Your task to perform on an android device: turn on bluetooth scan Image 0: 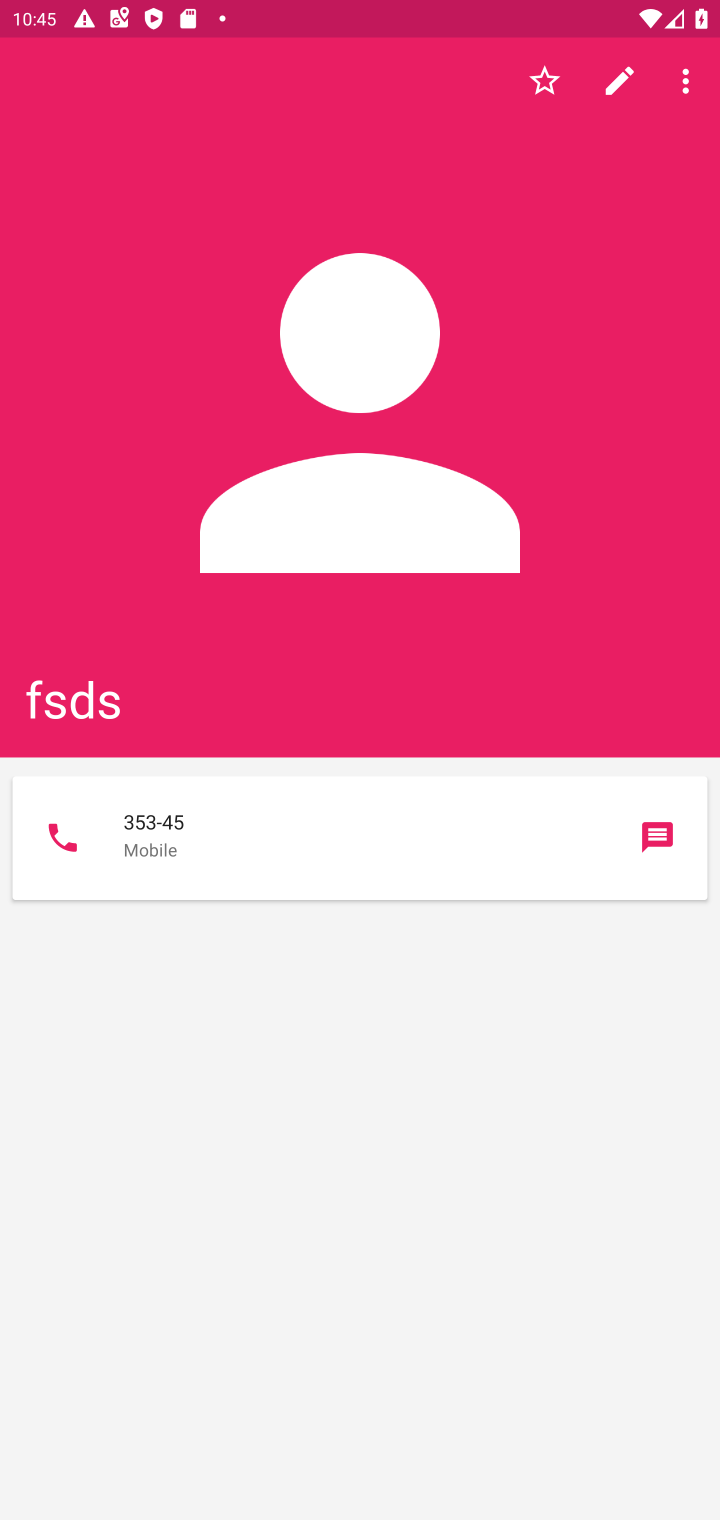
Step 0: press home button
Your task to perform on an android device: turn on bluetooth scan Image 1: 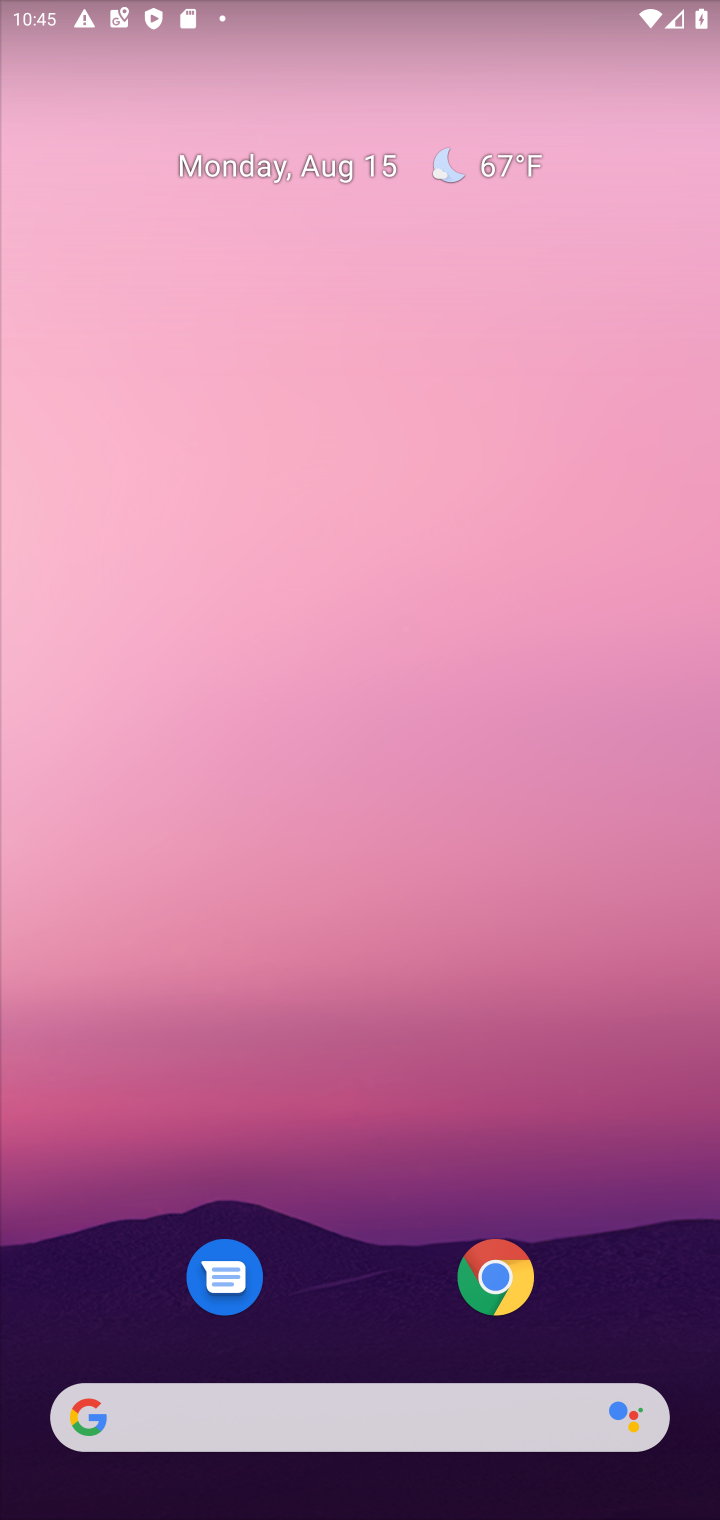
Step 1: drag from (420, 1399) to (209, 82)
Your task to perform on an android device: turn on bluetooth scan Image 2: 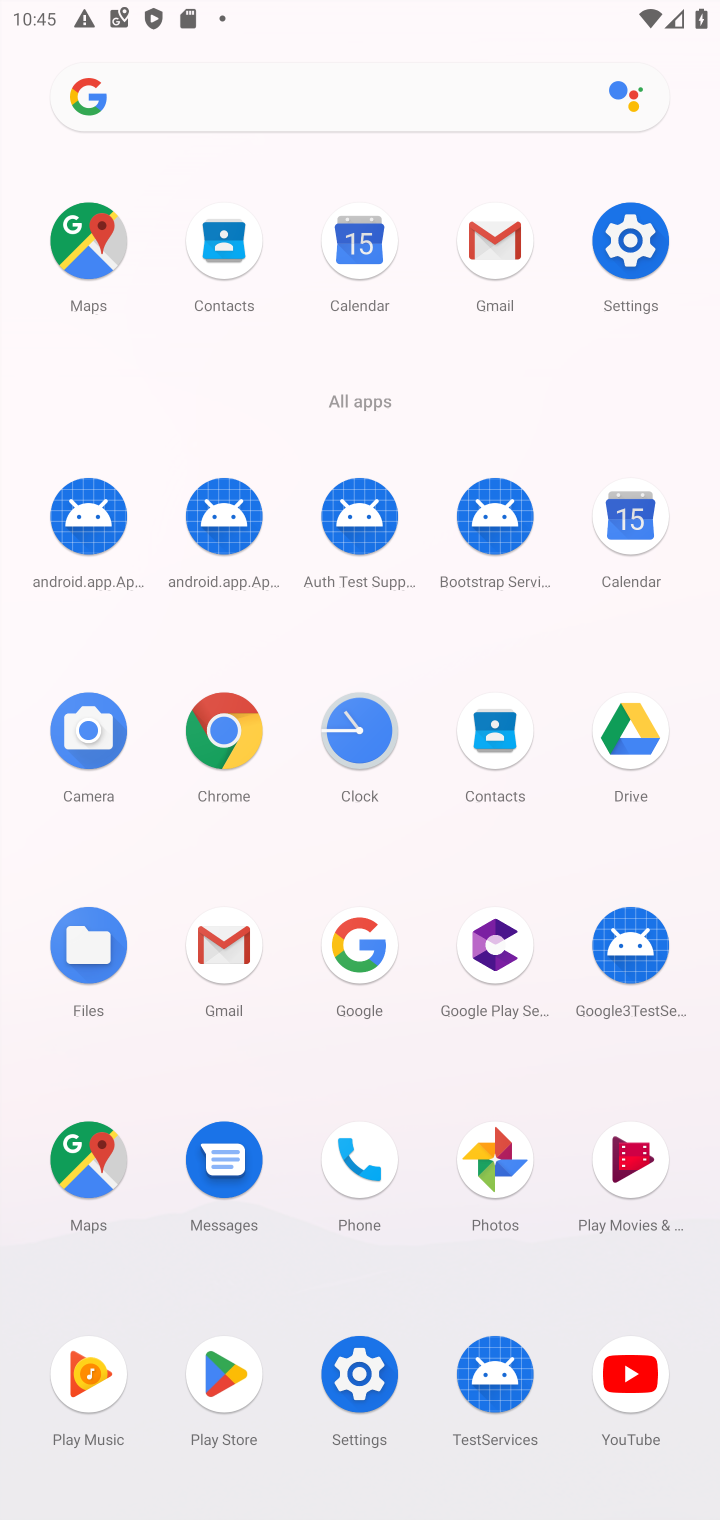
Step 2: click (605, 267)
Your task to perform on an android device: turn on bluetooth scan Image 3: 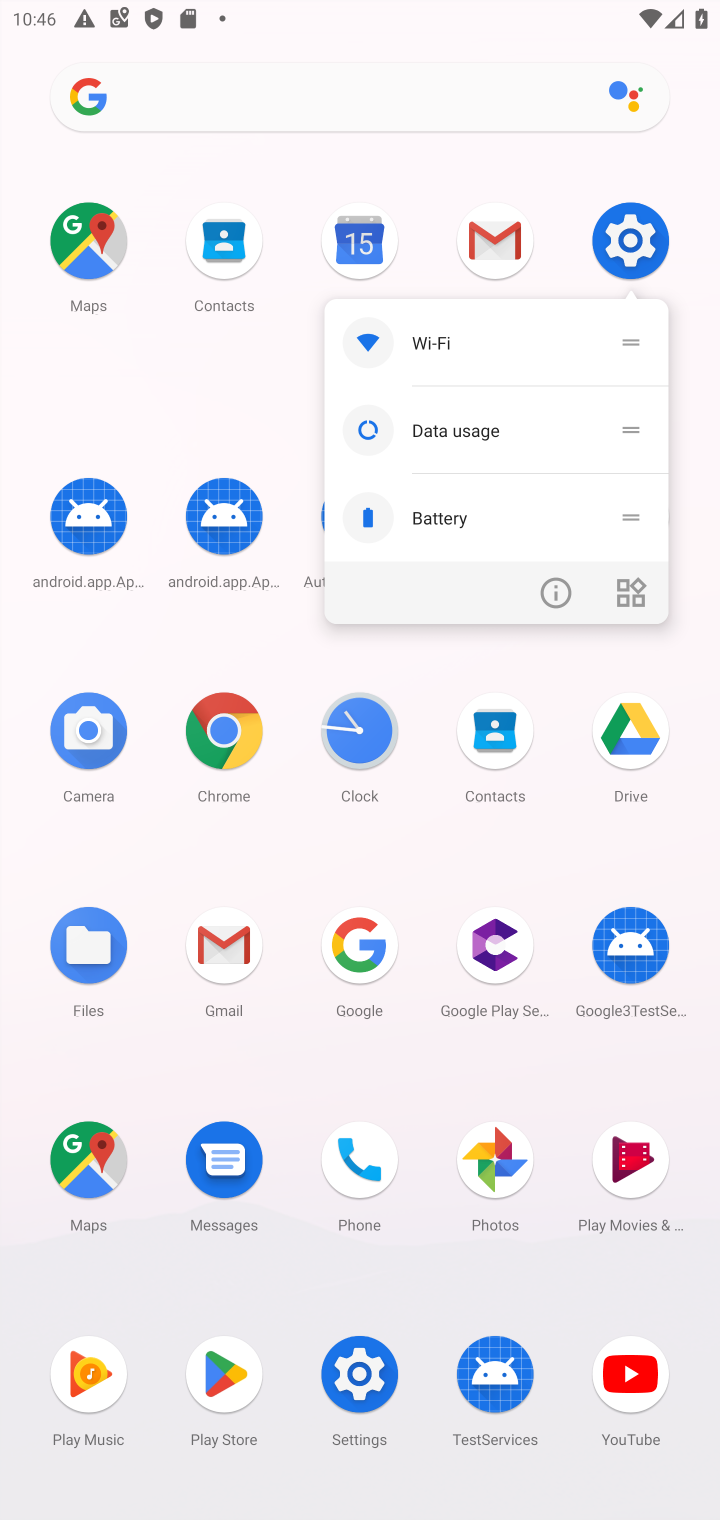
Step 3: click (636, 251)
Your task to perform on an android device: turn on bluetooth scan Image 4: 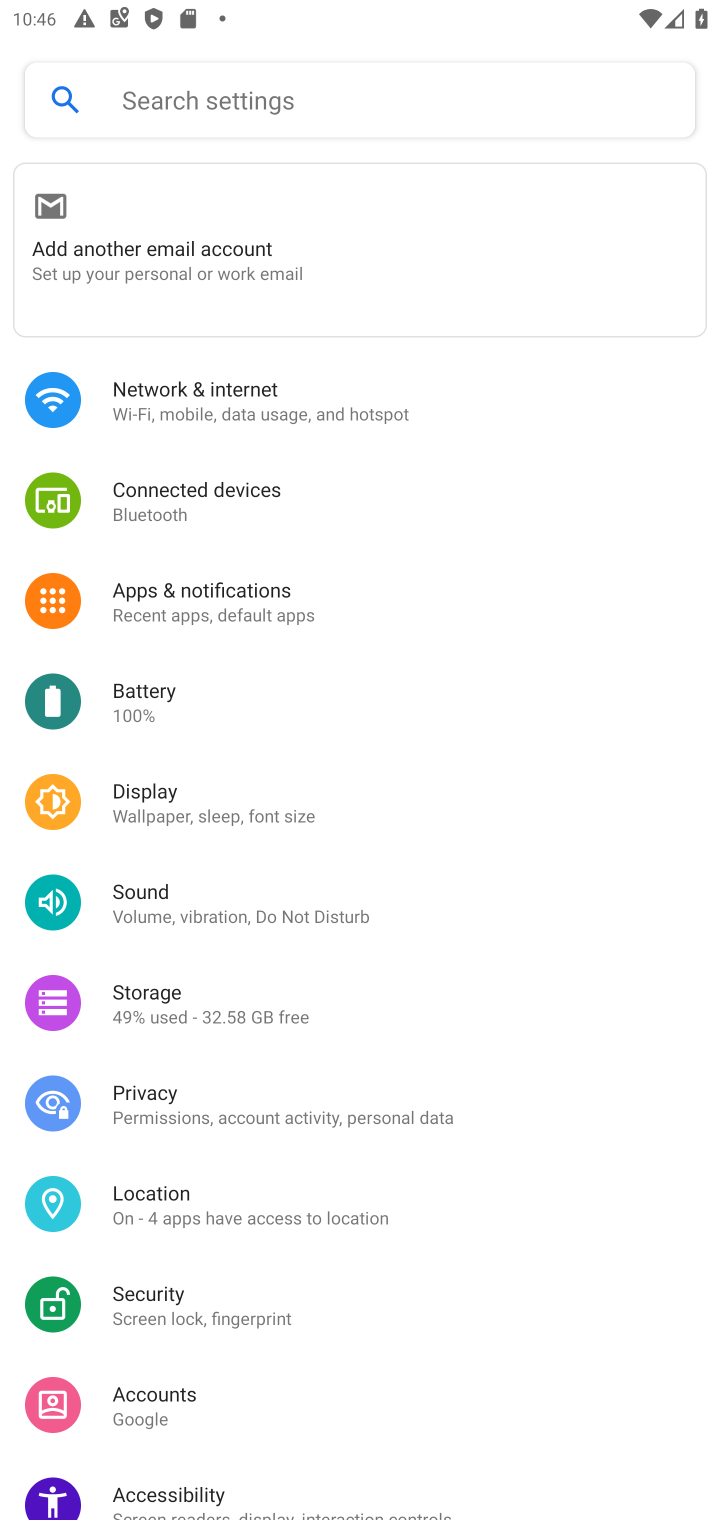
Step 4: click (173, 1242)
Your task to perform on an android device: turn on bluetooth scan Image 5: 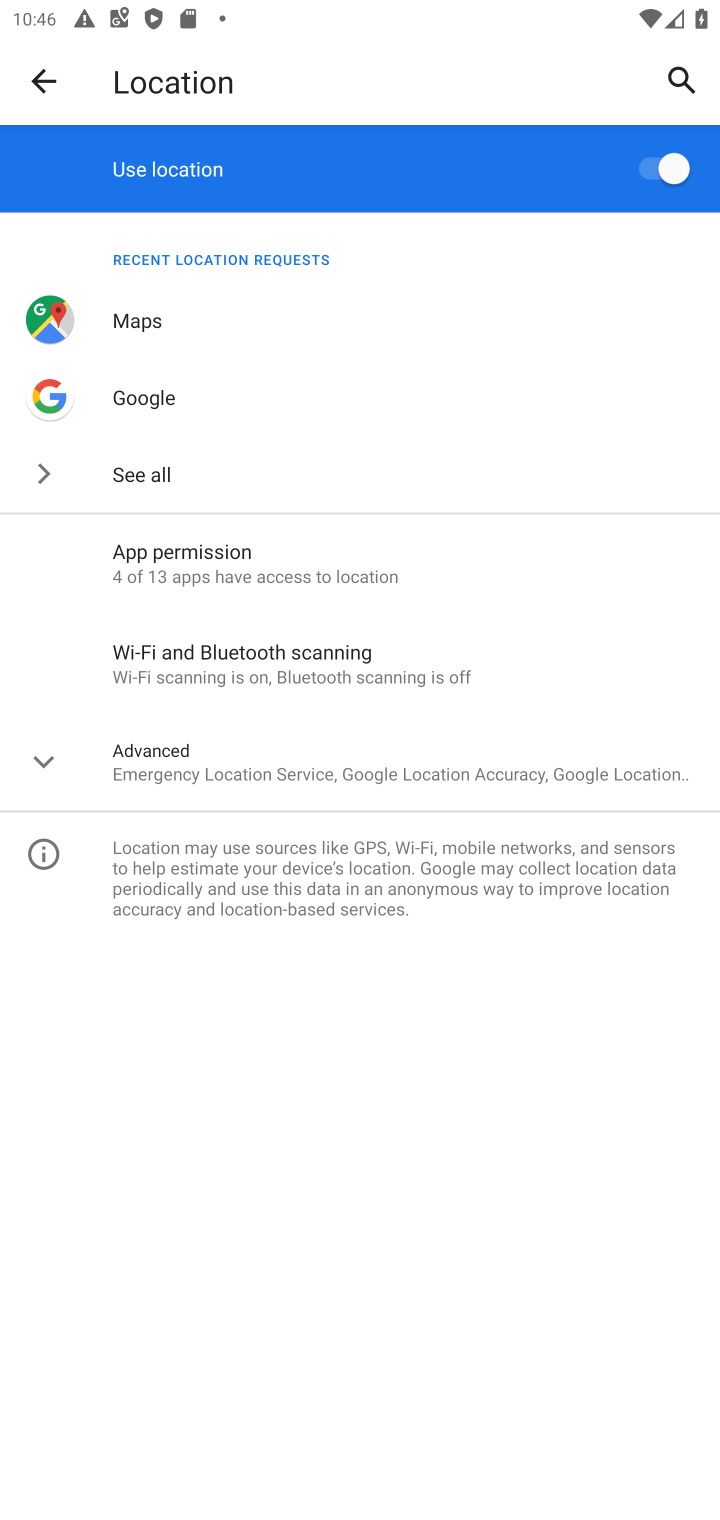
Step 5: click (225, 685)
Your task to perform on an android device: turn on bluetooth scan Image 6: 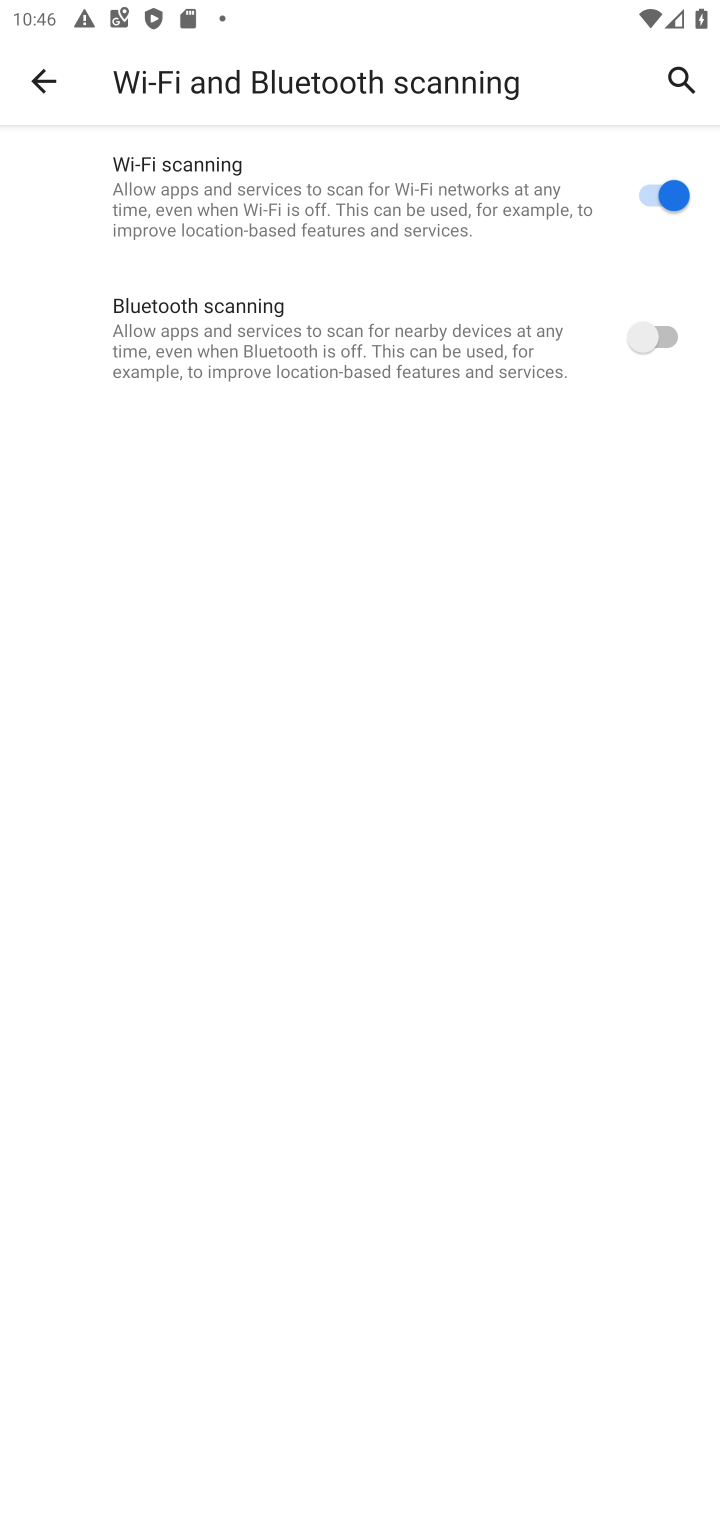
Step 6: click (672, 331)
Your task to perform on an android device: turn on bluetooth scan Image 7: 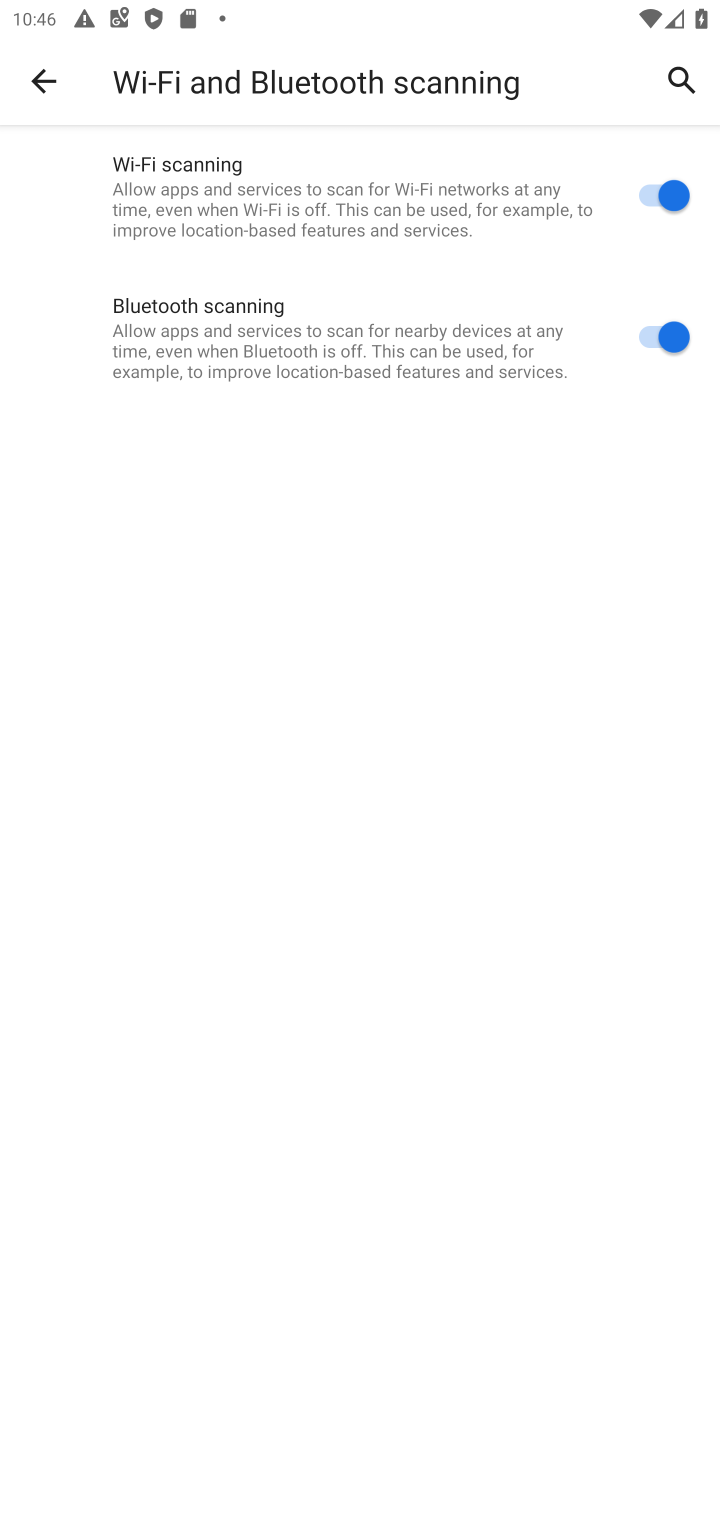
Step 7: task complete